Your task to perform on an android device: empty trash in google photos Image 0: 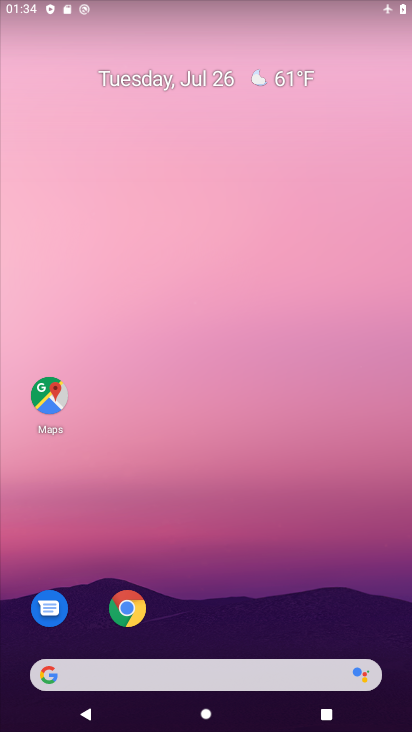
Step 0: drag from (165, 322) to (263, 92)
Your task to perform on an android device: empty trash in google photos Image 1: 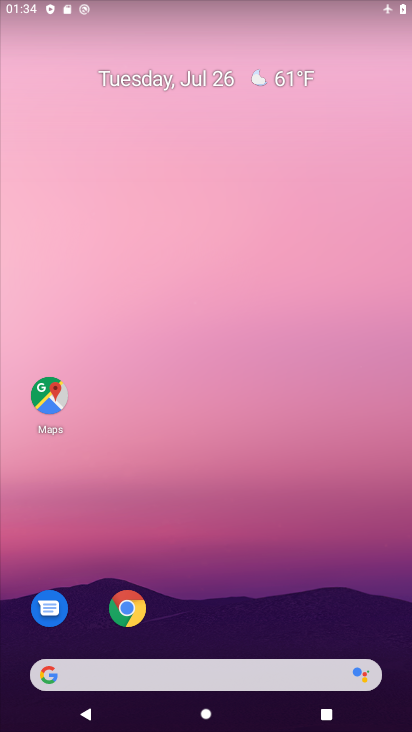
Step 1: drag from (63, 493) to (270, 9)
Your task to perform on an android device: empty trash in google photos Image 2: 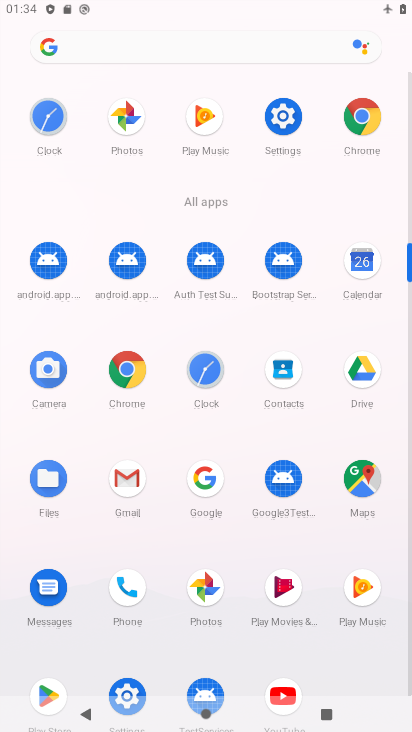
Step 2: click (126, 121)
Your task to perform on an android device: empty trash in google photos Image 3: 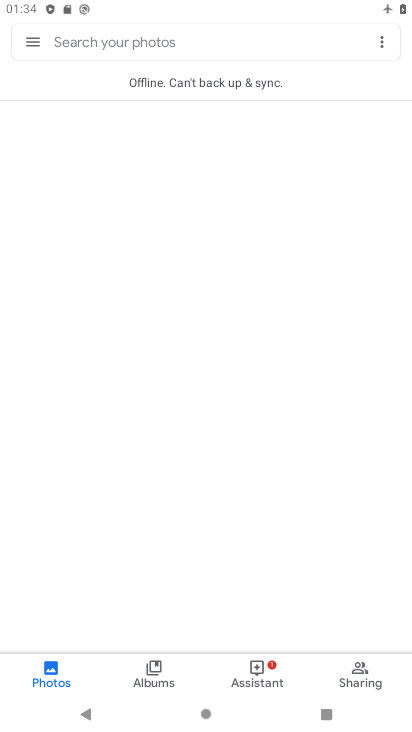
Step 3: click (31, 45)
Your task to perform on an android device: empty trash in google photos Image 4: 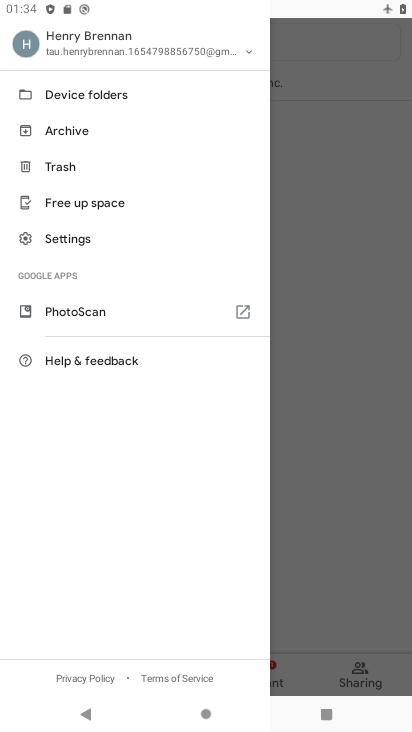
Step 4: click (63, 163)
Your task to perform on an android device: empty trash in google photos Image 5: 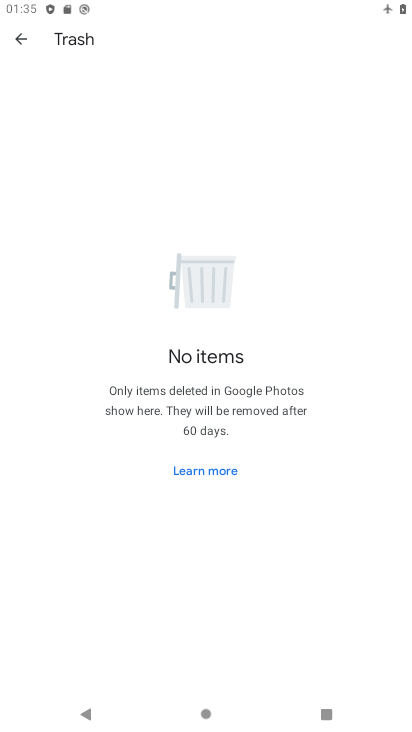
Step 5: task complete